Your task to perform on an android device: allow cookies in the chrome app Image 0: 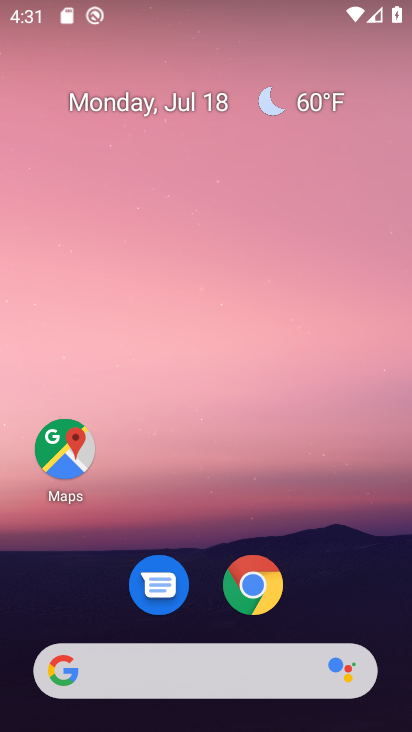
Step 0: click (254, 583)
Your task to perform on an android device: allow cookies in the chrome app Image 1: 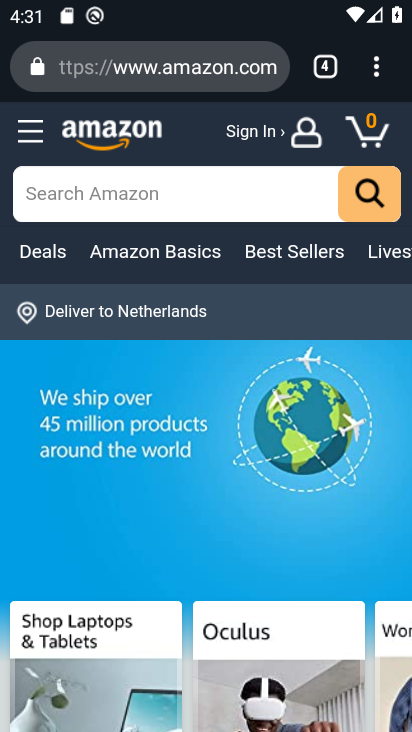
Step 1: click (380, 64)
Your task to perform on an android device: allow cookies in the chrome app Image 2: 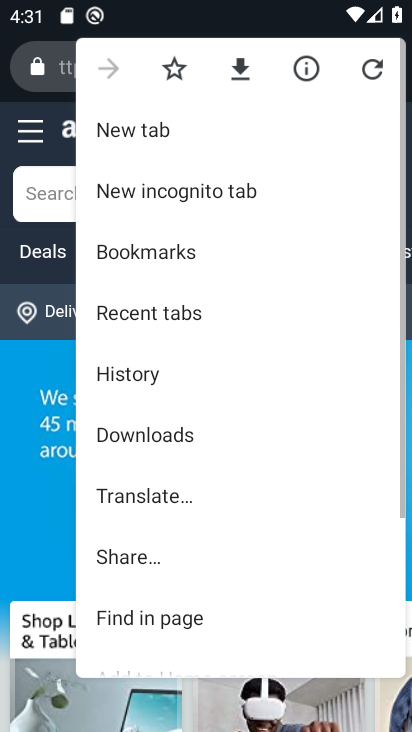
Step 2: drag from (248, 532) to (272, 111)
Your task to perform on an android device: allow cookies in the chrome app Image 3: 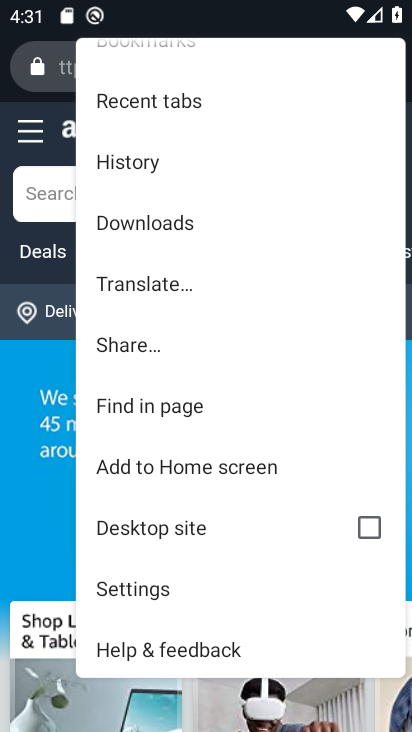
Step 3: click (152, 589)
Your task to perform on an android device: allow cookies in the chrome app Image 4: 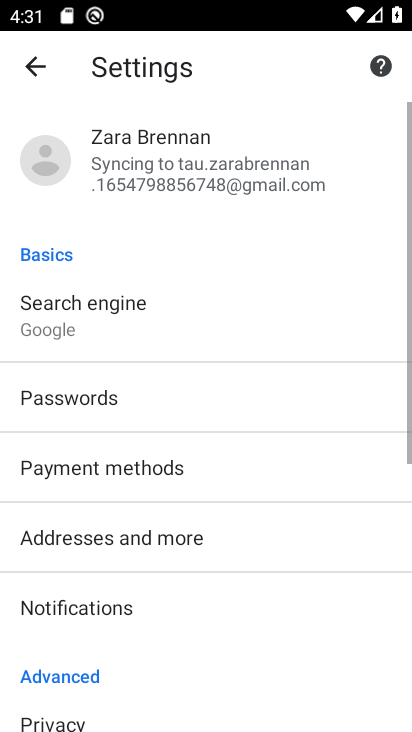
Step 4: drag from (266, 434) to (283, 87)
Your task to perform on an android device: allow cookies in the chrome app Image 5: 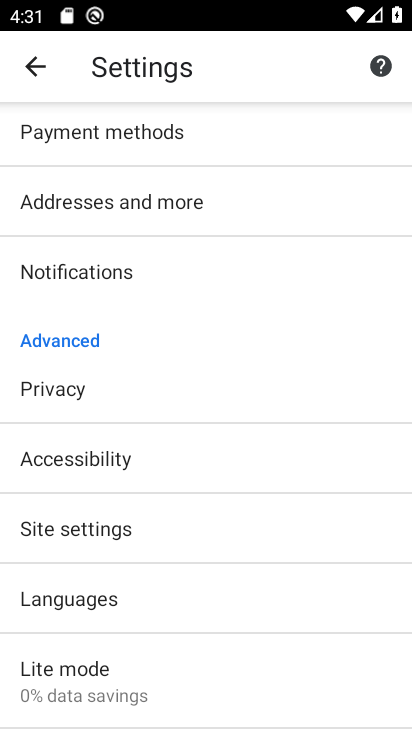
Step 5: click (111, 534)
Your task to perform on an android device: allow cookies in the chrome app Image 6: 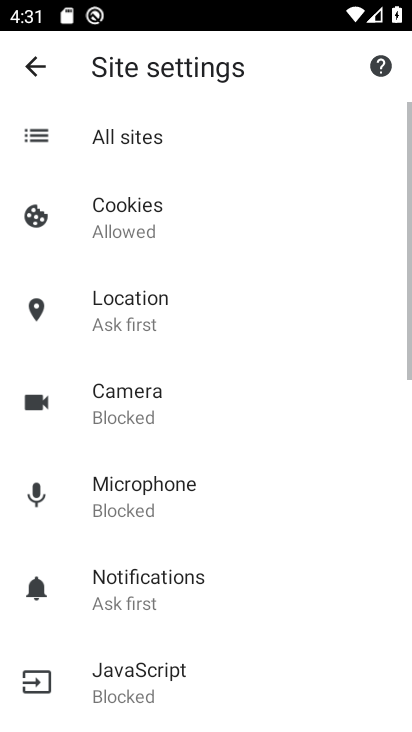
Step 6: click (163, 212)
Your task to perform on an android device: allow cookies in the chrome app Image 7: 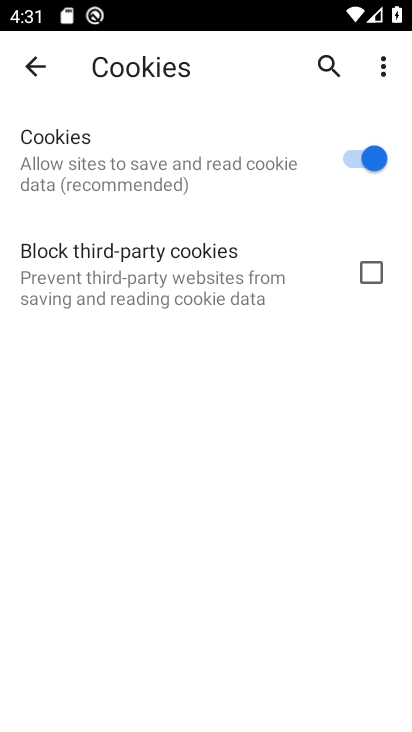
Step 7: task complete